Your task to perform on an android device: Open Youtube and go to "Your channel" Image 0: 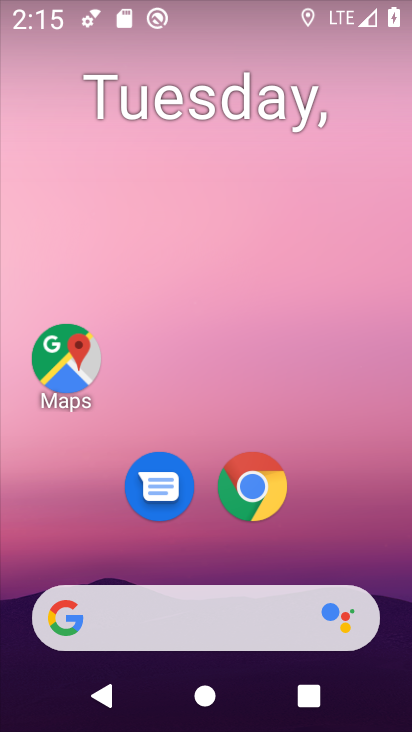
Step 0: press home button
Your task to perform on an android device: Open Youtube and go to "Your channel" Image 1: 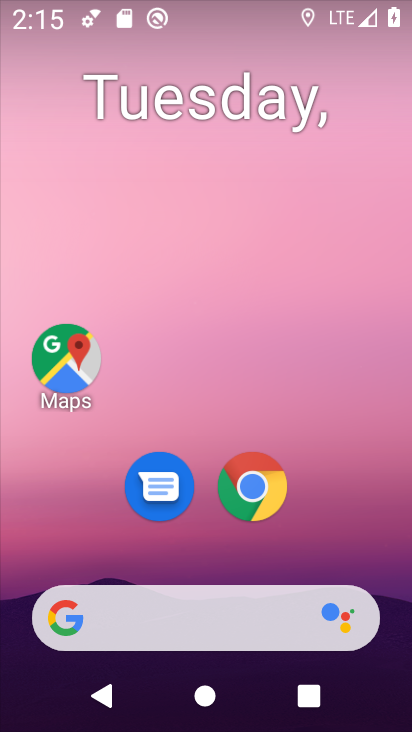
Step 1: drag from (369, 537) to (352, 79)
Your task to perform on an android device: Open Youtube and go to "Your channel" Image 2: 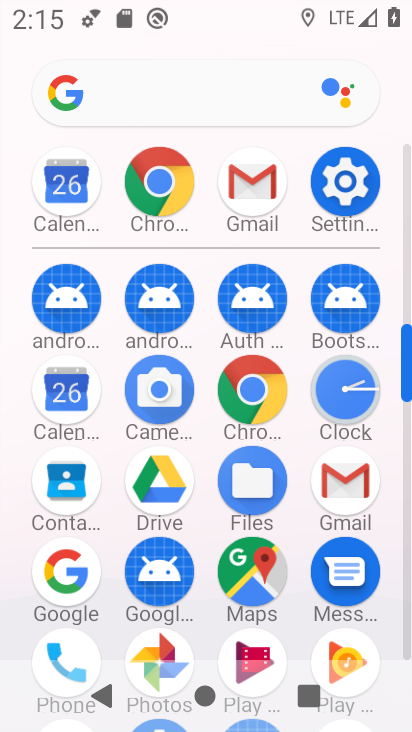
Step 2: drag from (384, 527) to (382, 272)
Your task to perform on an android device: Open Youtube and go to "Your channel" Image 3: 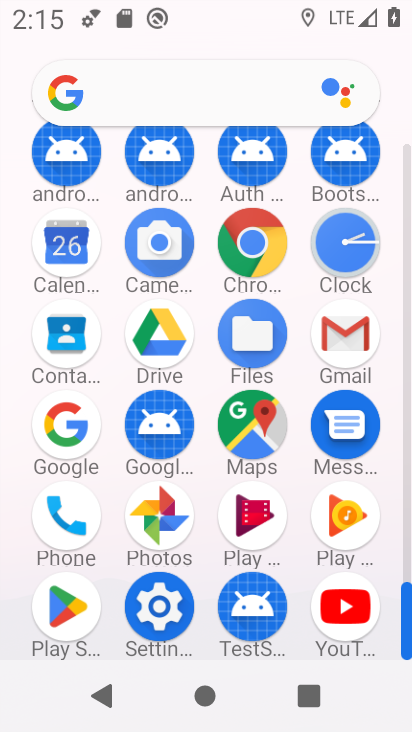
Step 3: click (346, 610)
Your task to perform on an android device: Open Youtube and go to "Your channel" Image 4: 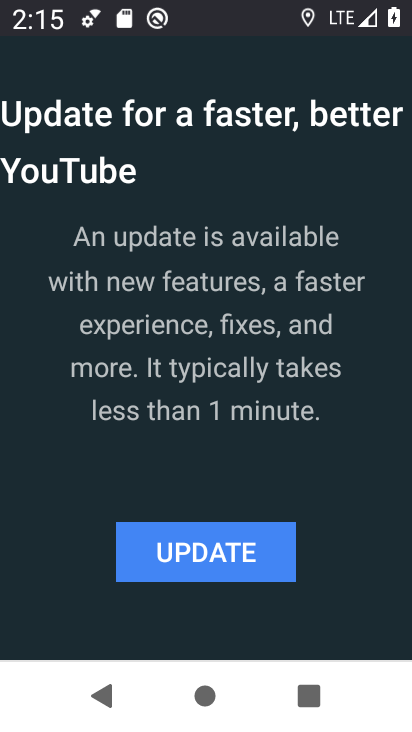
Step 4: click (226, 563)
Your task to perform on an android device: Open Youtube and go to "Your channel" Image 5: 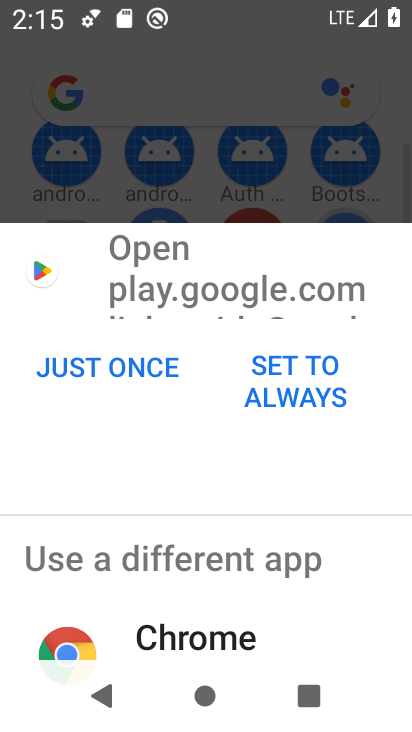
Step 5: click (134, 371)
Your task to perform on an android device: Open Youtube and go to "Your channel" Image 6: 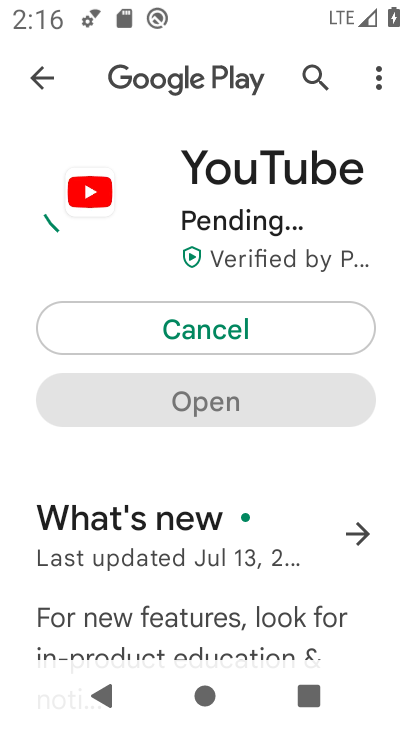
Step 6: task complete